Your task to perform on an android device: show emergency info Image 0: 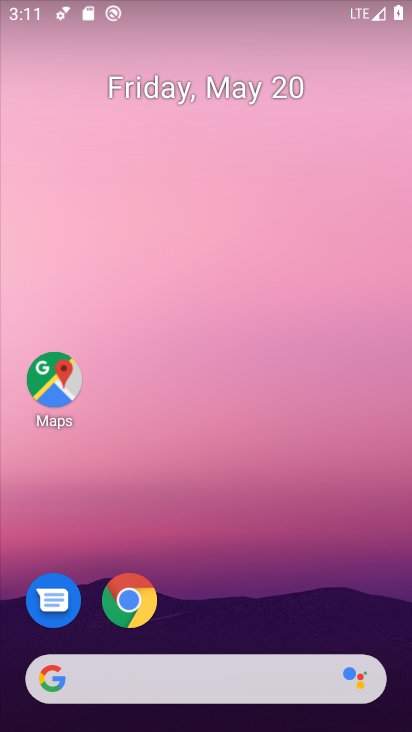
Step 0: drag from (352, 611) to (329, 210)
Your task to perform on an android device: show emergency info Image 1: 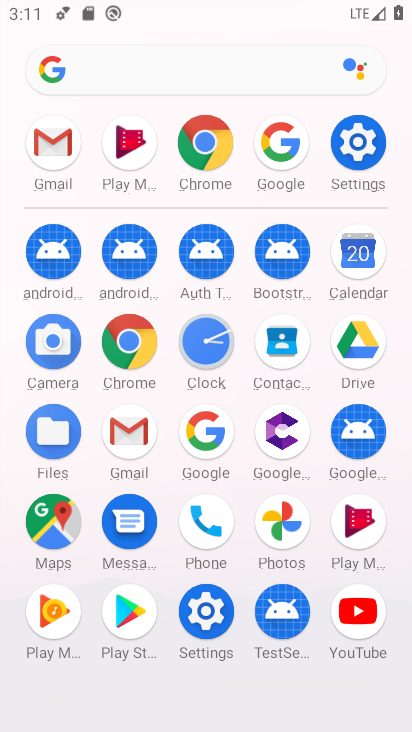
Step 1: click (203, 620)
Your task to perform on an android device: show emergency info Image 2: 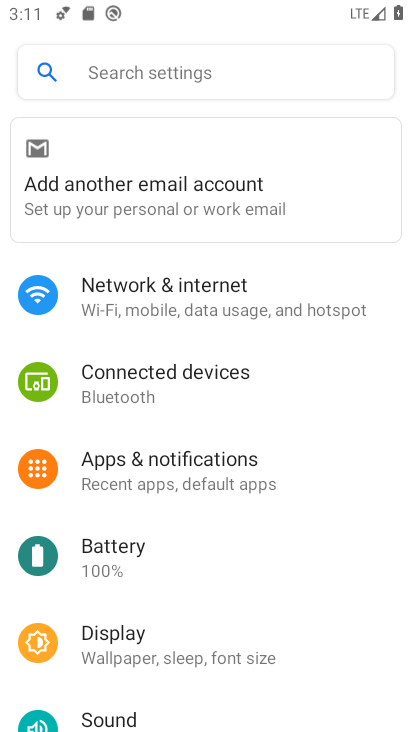
Step 2: drag from (359, 374) to (342, 538)
Your task to perform on an android device: show emergency info Image 3: 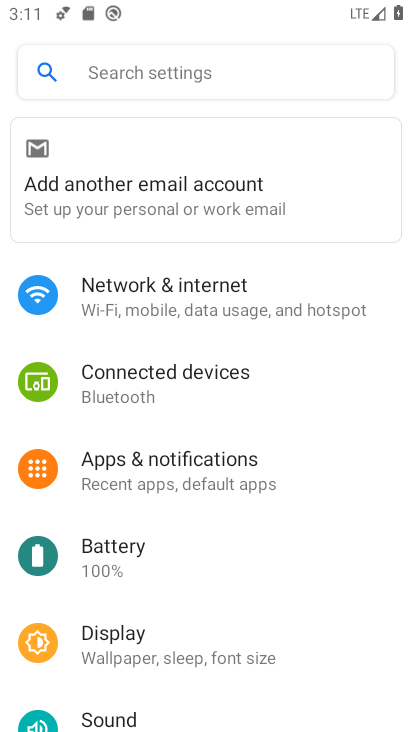
Step 3: drag from (349, 638) to (354, 493)
Your task to perform on an android device: show emergency info Image 4: 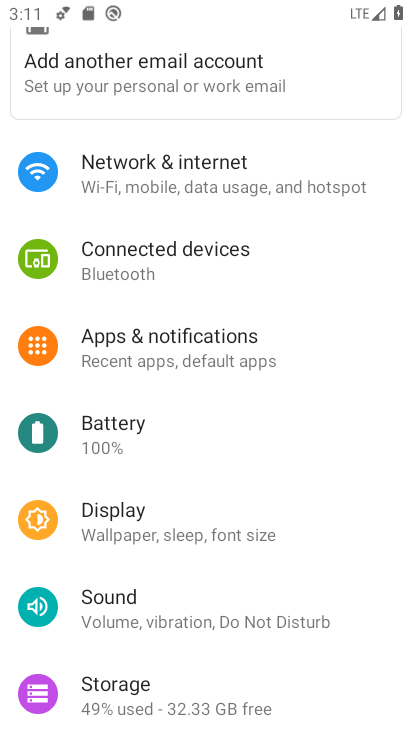
Step 4: drag from (359, 662) to (350, 536)
Your task to perform on an android device: show emergency info Image 5: 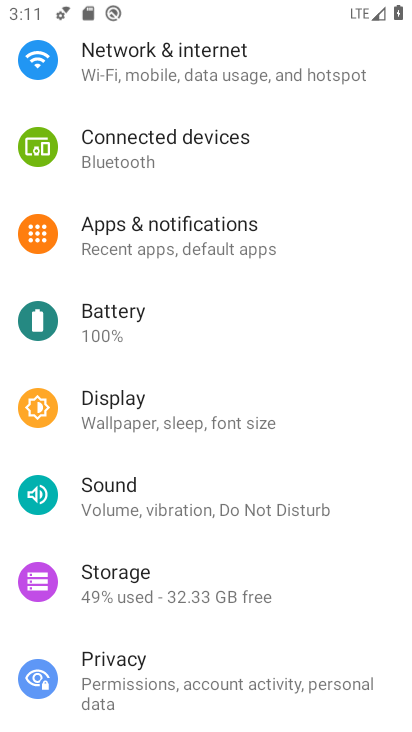
Step 5: drag from (339, 652) to (345, 556)
Your task to perform on an android device: show emergency info Image 6: 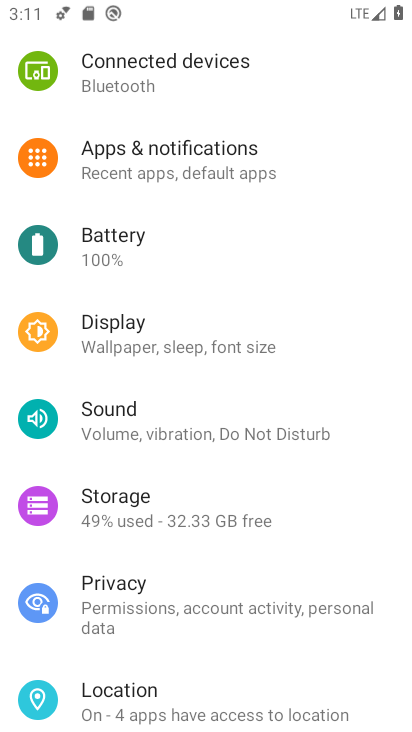
Step 6: drag from (344, 668) to (355, 564)
Your task to perform on an android device: show emergency info Image 7: 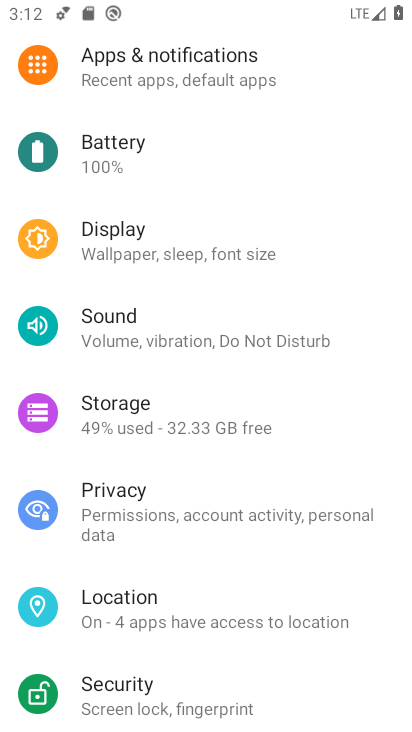
Step 7: drag from (364, 660) to (359, 545)
Your task to perform on an android device: show emergency info Image 8: 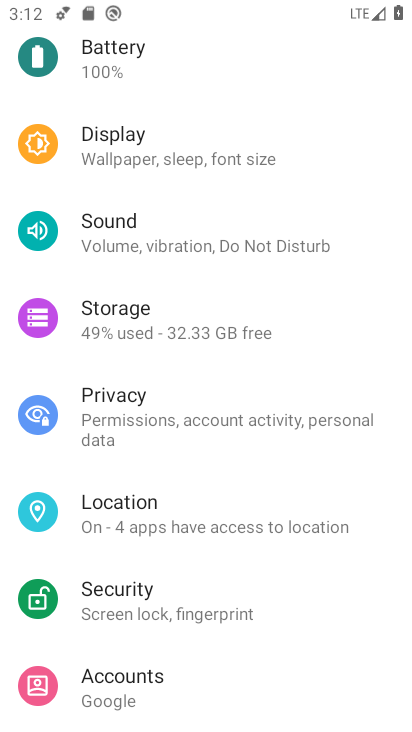
Step 8: drag from (362, 668) to (361, 531)
Your task to perform on an android device: show emergency info Image 9: 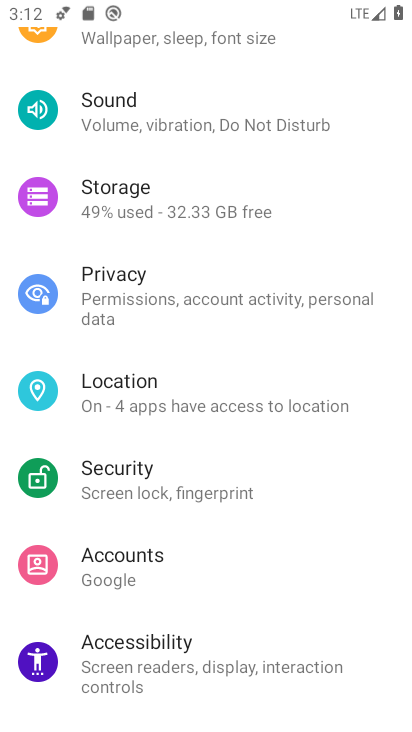
Step 9: drag from (364, 679) to (362, 565)
Your task to perform on an android device: show emergency info Image 10: 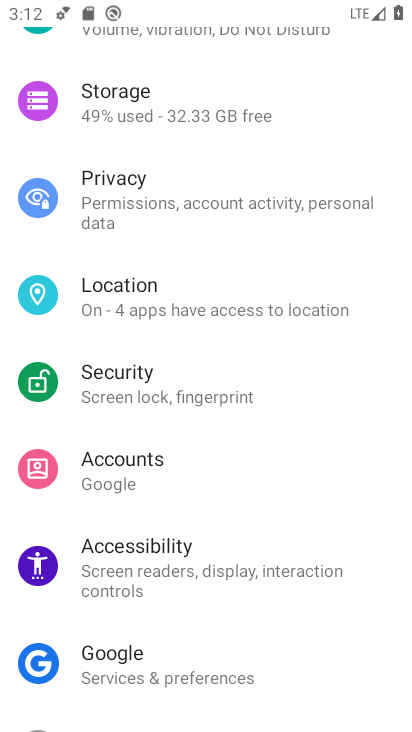
Step 10: drag from (368, 681) to (368, 552)
Your task to perform on an android device: show emergency info Image 11: 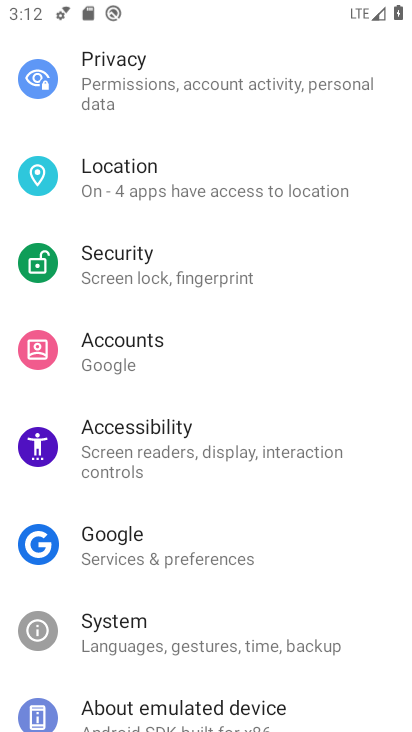
Step 11: drag from (350, 685) to (349, 555)
Your task to perform on an android device: show emergency info Image 12: 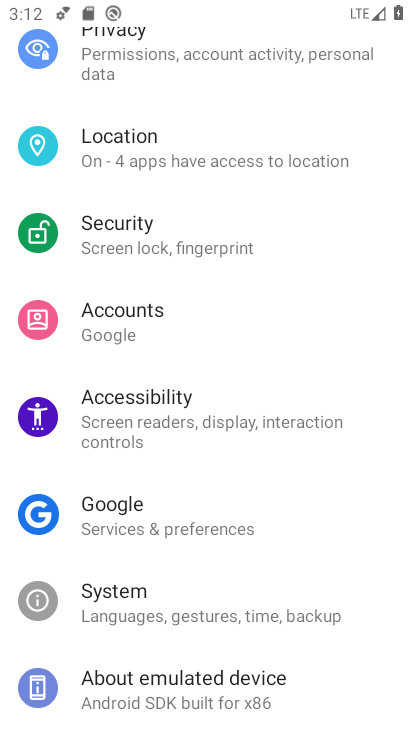
Step 12: click (195, 674)
Your task to perform on an android device: show emergency info Image 13: 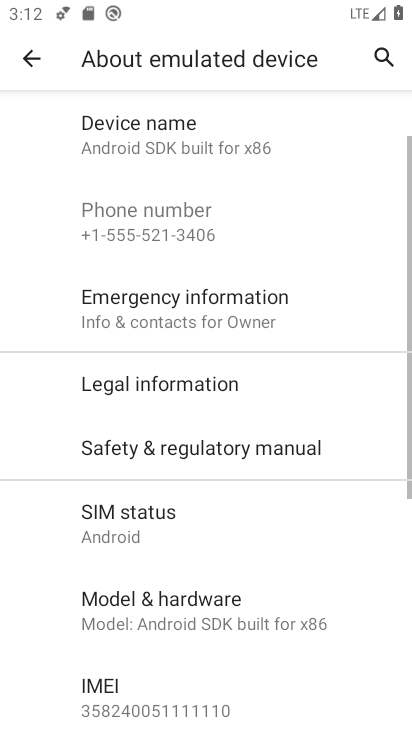
Step 13: drag from (333, 353) to (320, 544)
Your task to perform on an android device: show emergency info Image 14: 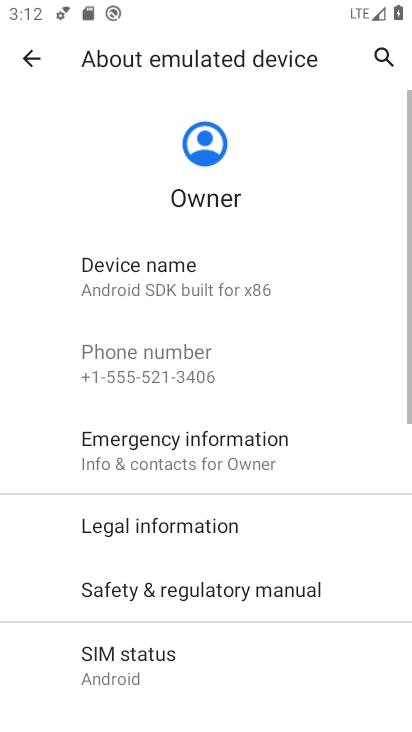
Step 14: drag from (340, 280) to (315, 451)
Your task to perform on an android device: show emergency info Image 15: 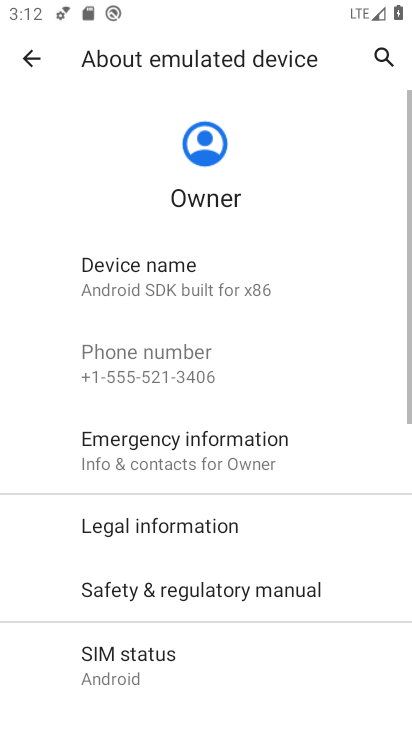
Step 15: drag from (337, 573) to (330, 405)
Your task to perform on an android device: show emergency info Image 16: 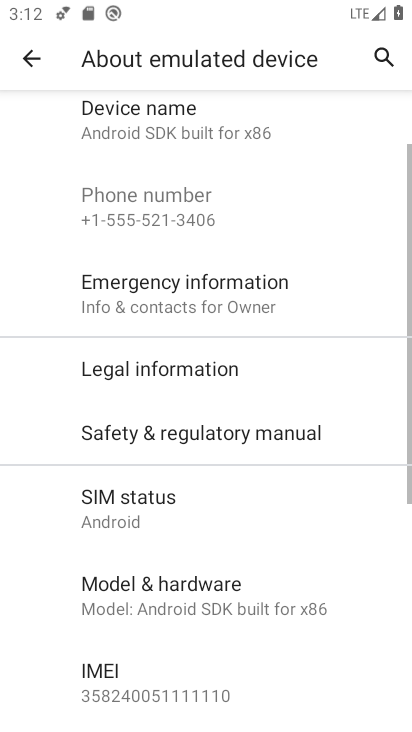
Step 16: drag from (346, 587) to (332, 443)
Your task to perform on an android device: show emergency info Image 17: 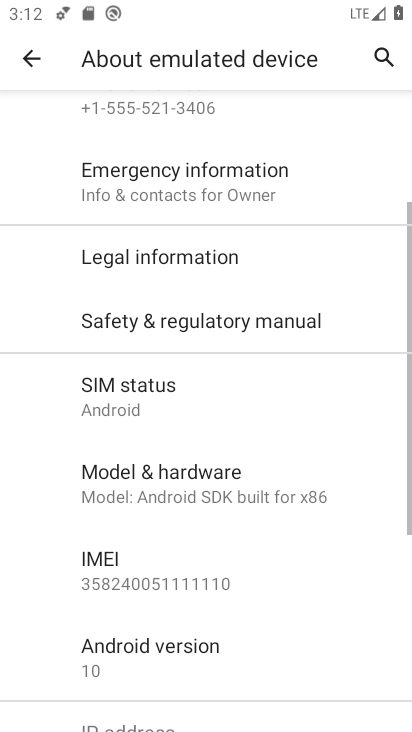
Step 17: drag from (333, 601) to (341, 487)
Your task to perform on an android device: show emergency info Image 18: 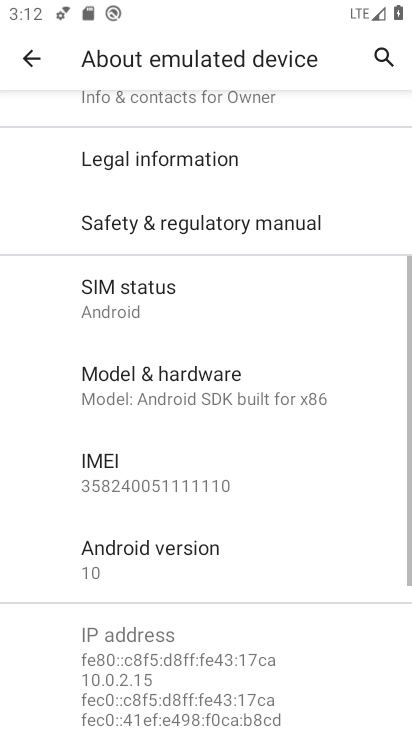
Step 18: drag from (324, 668) to (327, 525)
Your task to perform on an android device: show emergency info Image 19: 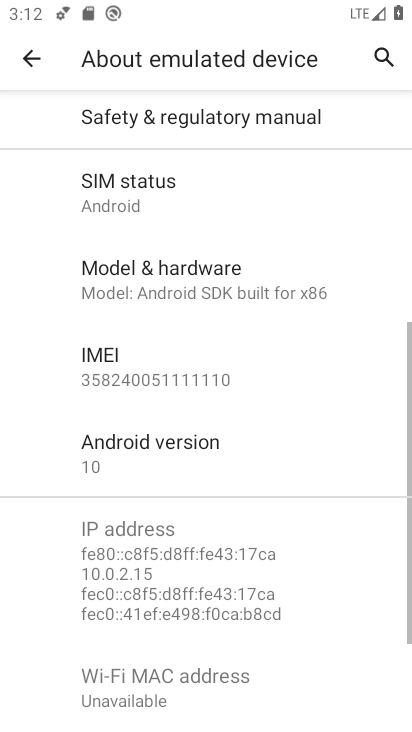
Step 19: drag from (351, 413) to (352, 582)
Your task to perform on an android device: show emergency info Image 20: 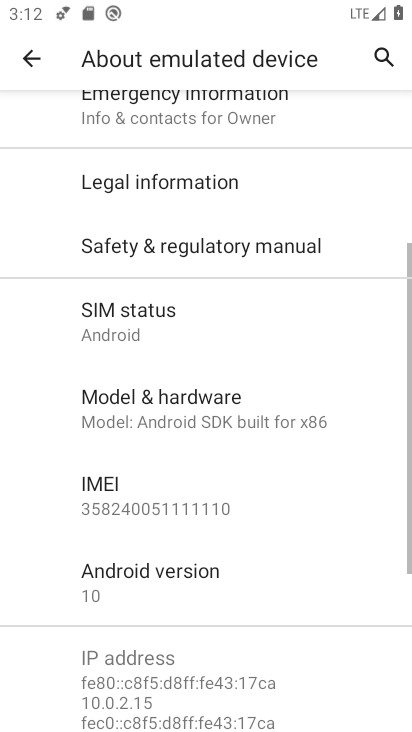
Step 20: drag from (367, 388) to (353, 528)
Your task to perform on an android device: show emergency info Image 21: 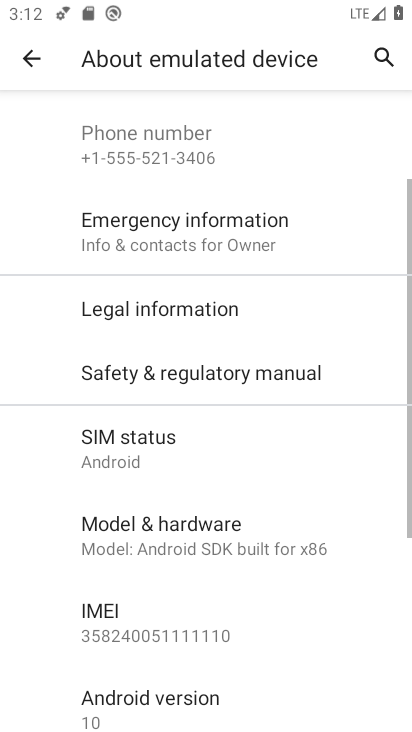
Step 21: drag from (361, 371) to (356, 513)
Your task to perform on an android device: show emergency info Image 22: 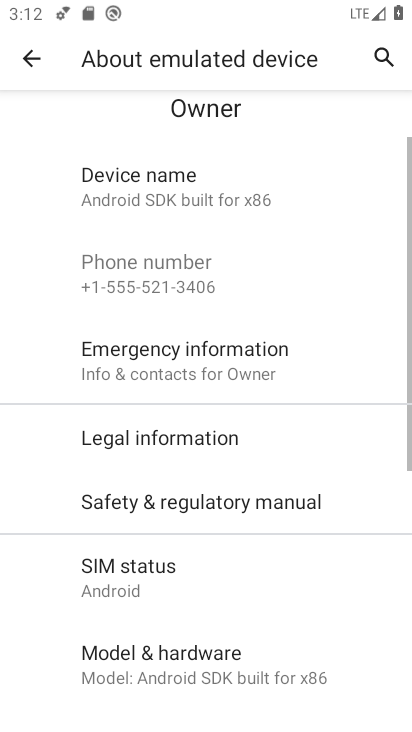
Step 22: click (224, 378)
Your task to perform on an android device: show emergency info Image 23: 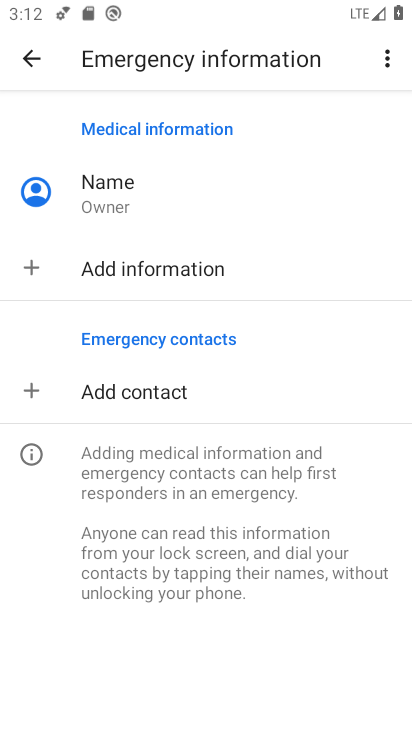
Step 23: task complete